Your task to perform on an android device: Go to accessibility settings Image 0: 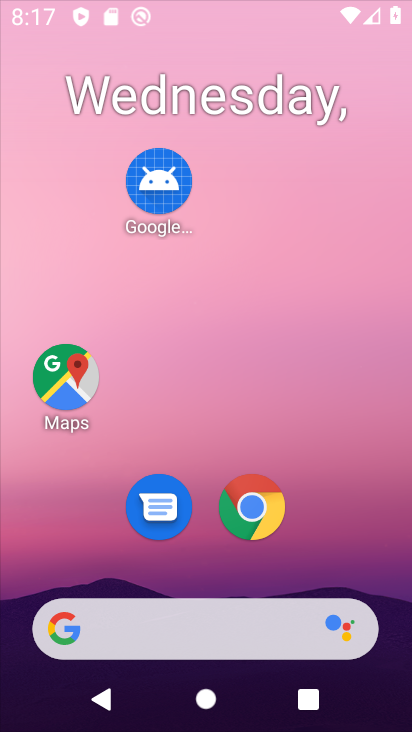
Step 0: drag from (224, 581) to (264, 6)
Your task to perform on an android device: Go to accessibility settings Image 1: 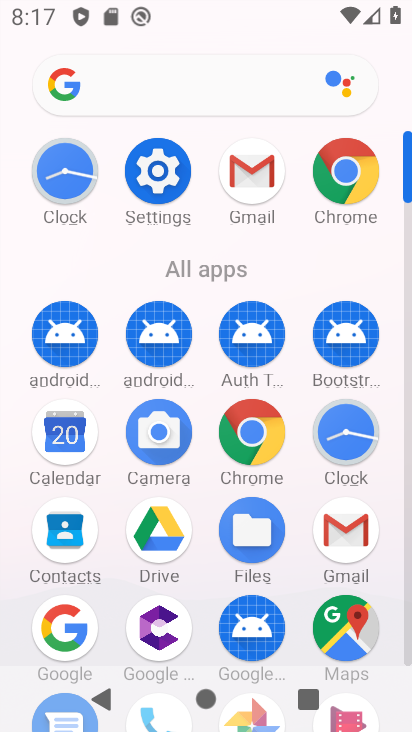
Step 1: click (148, 172)
Your task to perform on an android device: Go to accessibility settings Image 2: 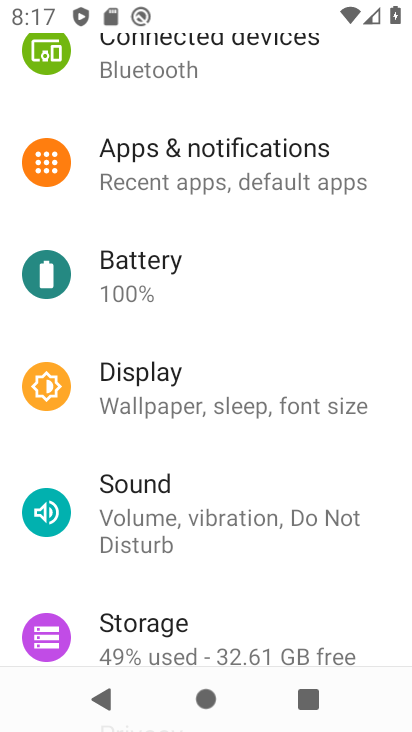
Step 2: drag from (230, 552) to (189, 168)
Your task to perform on an android device: Go to accessibility settings Image 3: 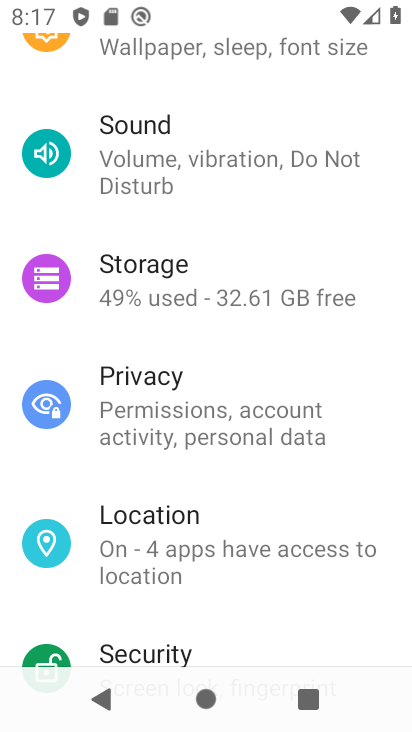
Step 3: drag from (190, 603) to (163, 115)
Your task to perform on an android device: Go to accessibility settings Image 4: 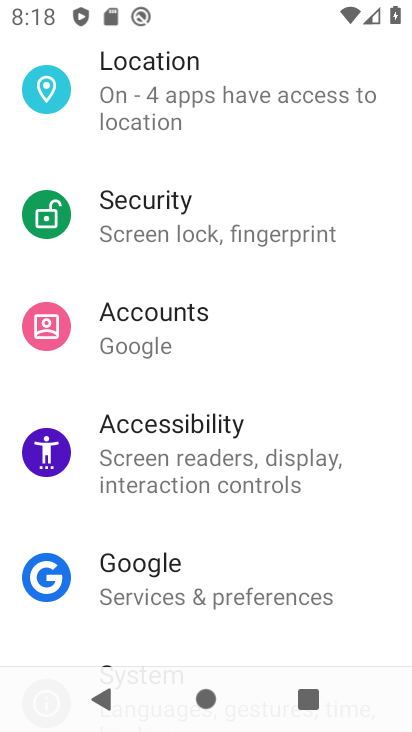
Step 4: click (174, 463)
Your task to perform on an android device: Go to accessibility settings Image 5: 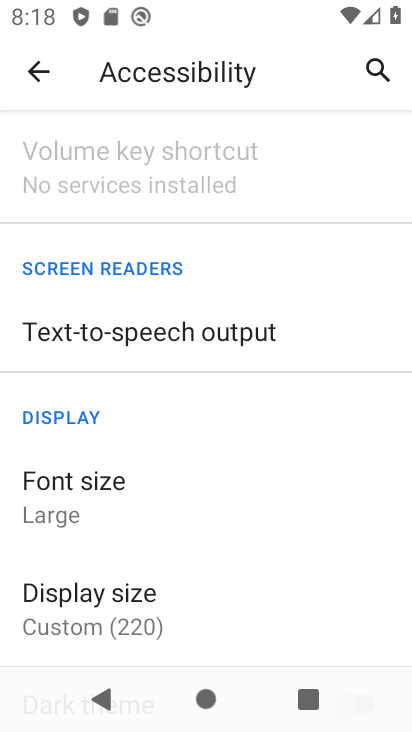
Step 5: task complete